Your task to perform on an android device: Open wifi settings Image 0: 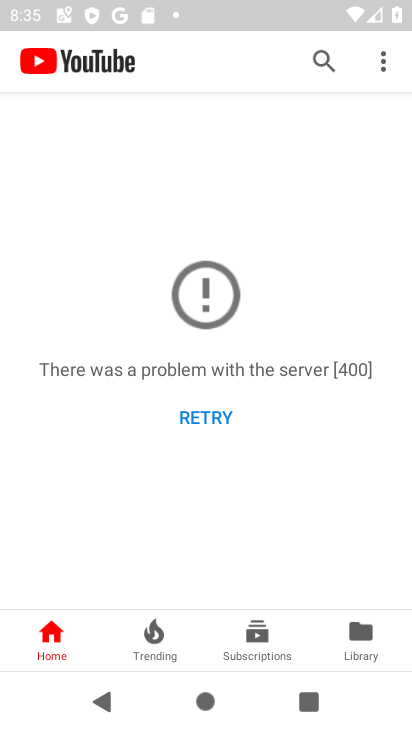
Step 0: press home button
Your task to perform on an android device: Open wifi settings Image 1: 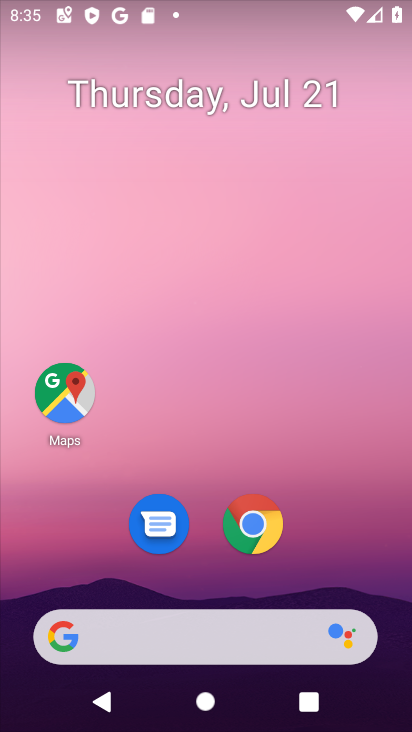
Step 1: drag from (175, 621) to (333, 88)
Your task to perform on an android device: Open wifi settings Image 2: 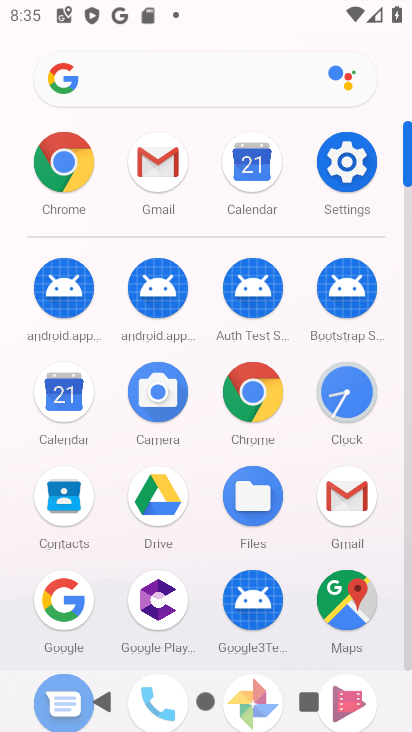
Step 2: click (335, 171)
Your task to perform on an android device: Open wifi settings Image 3: 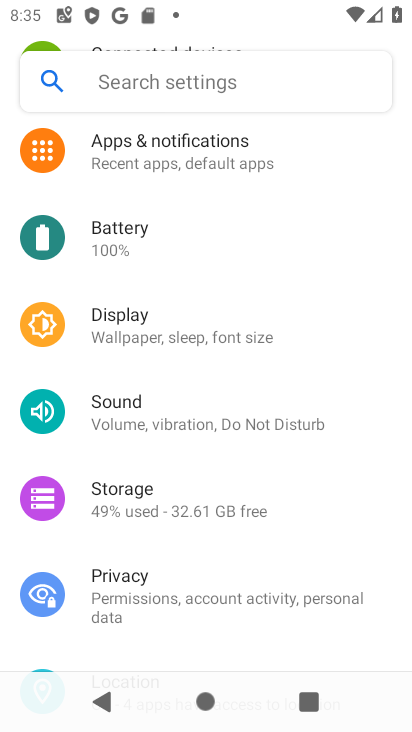
Step 3: drag from (335, 149) to (327, 626)
Your task to perform on an android device: Open wifi settings Image 4: 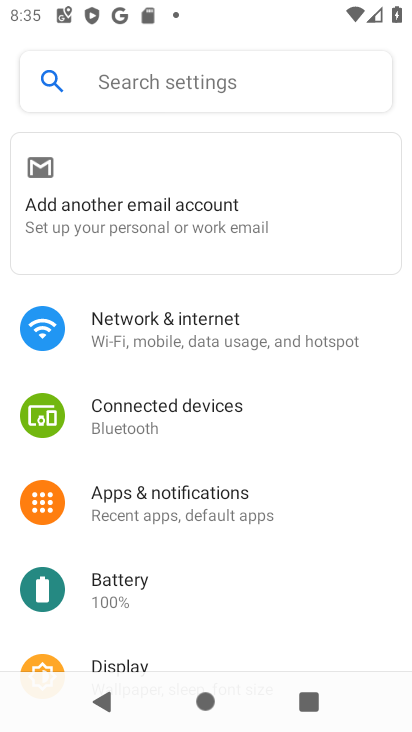
Step 4: click (180, 325)
Your task to perform on an android device: Open wifi settings Image 5: 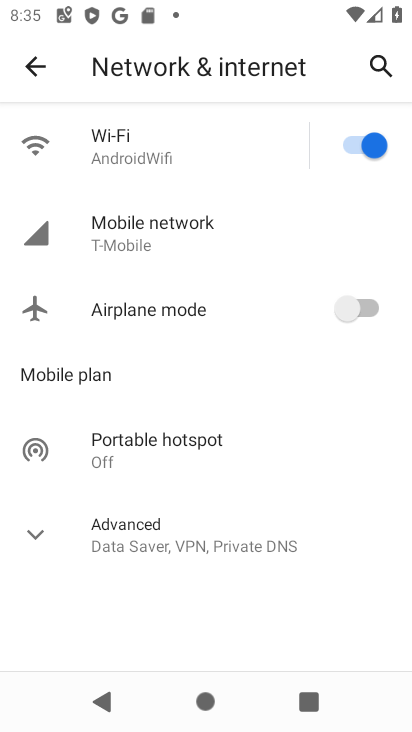
Step 5: click (120, 151)
Your task to perform on an android device: Open wifi settings Image 6: 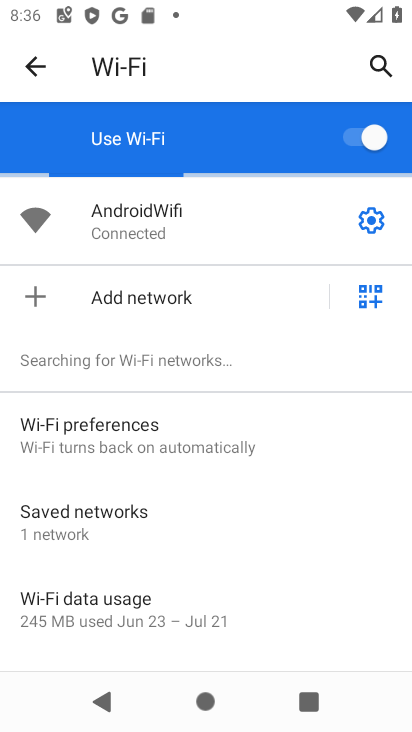
Step 6: task complete